Your task to perform on an android device: open chrome and create a bookmark for the current page Image 0: 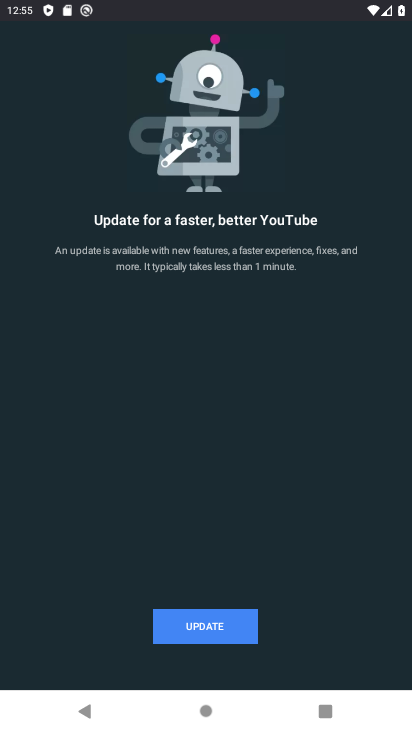
Step 0: press home button
Your task to perform on an android device: open chrome and create a bookmark for the current page Image 1: 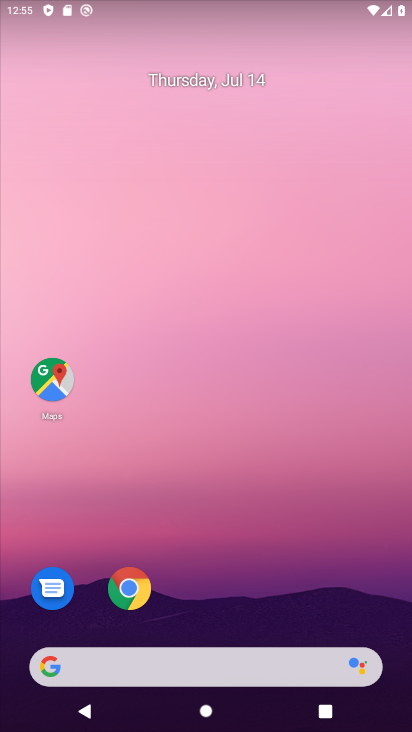
Step 1: click (124, 596)
Your task to perform on an android device: open chrome and create a bookmark for the current page Image 2: 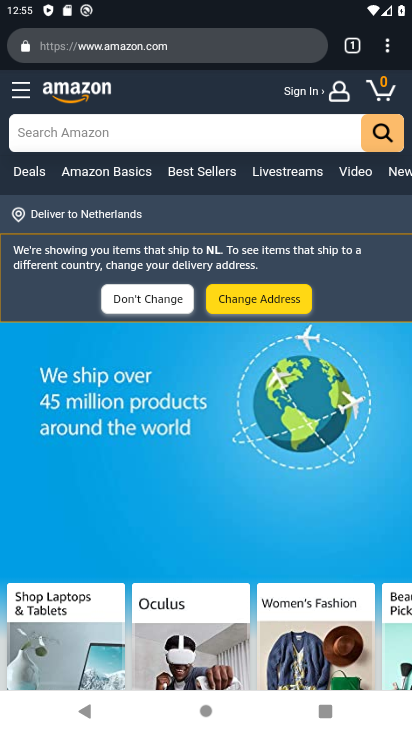
Step 2: click (391, 45)
Your task to perform on an android device: open chrome and create a bookmark for the current page Image 3: 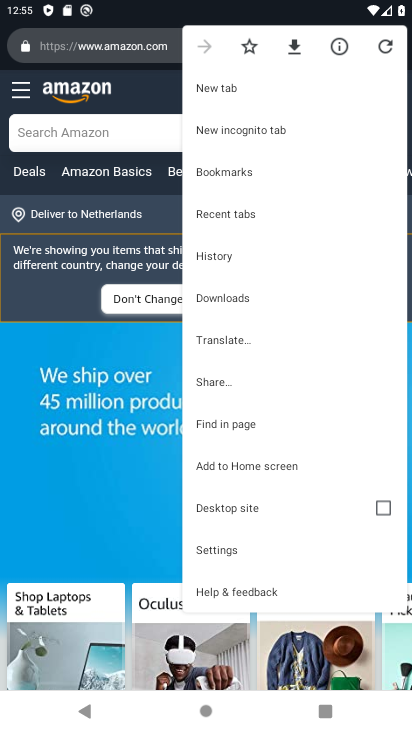
Step 3: click (107, 343)
Your task to perform on an android device: open chrome and create a bookmark for the current page Image 4: 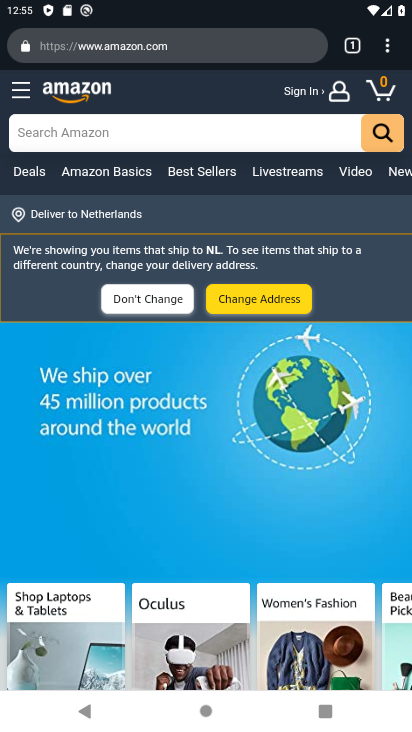
Step 4: click (393, 39)
Your task to perform on an android device: open chrome and create a bookmark for the current page Image 5: 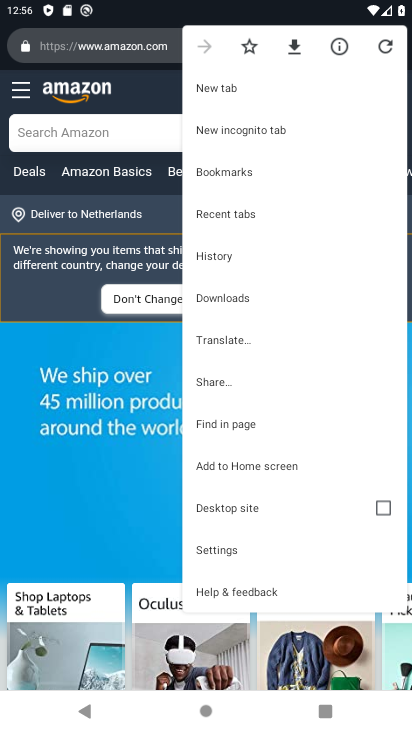
Step 5: click (246, 46)
Your task to perform on an android device: open chrome and create a bookmark for the current page Image 6: 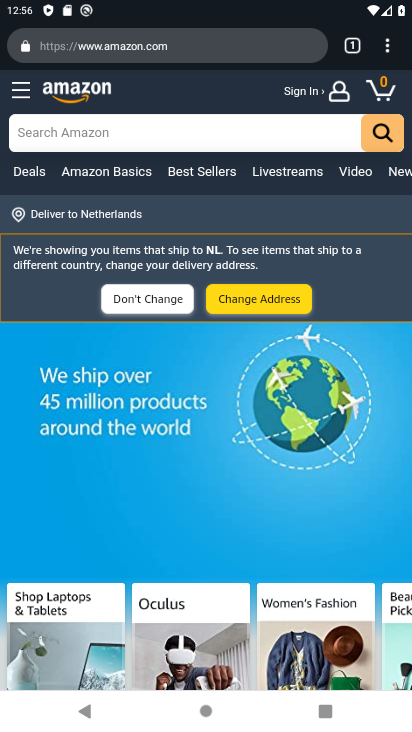
Step 6: task complete